Your task to perform on an android device: What's on my calendar today? Image 0: 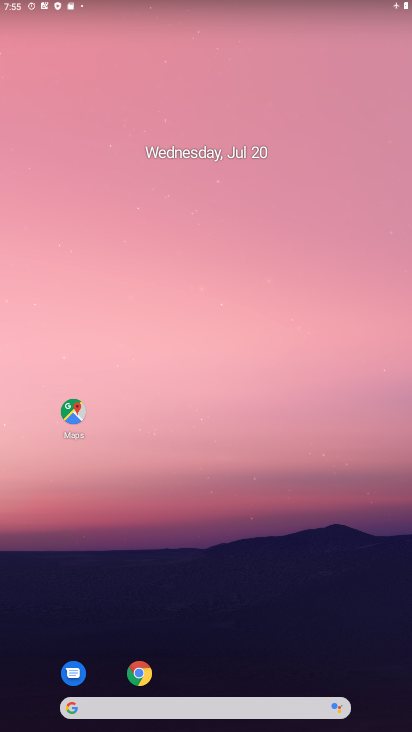
Step 0: drag from (381, 660) to (121, 70)
Your task to perform on an android device: What's on my calendar today? Image 1: 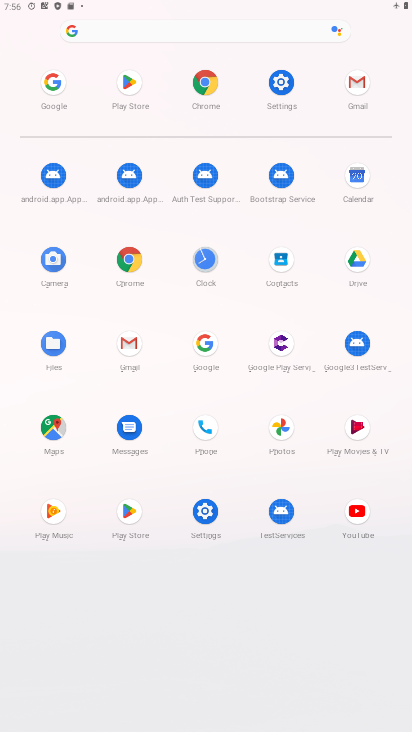
Step 1: click (353, 169)
Your task to perform on an android device: What's on my calendar today? Image 2: 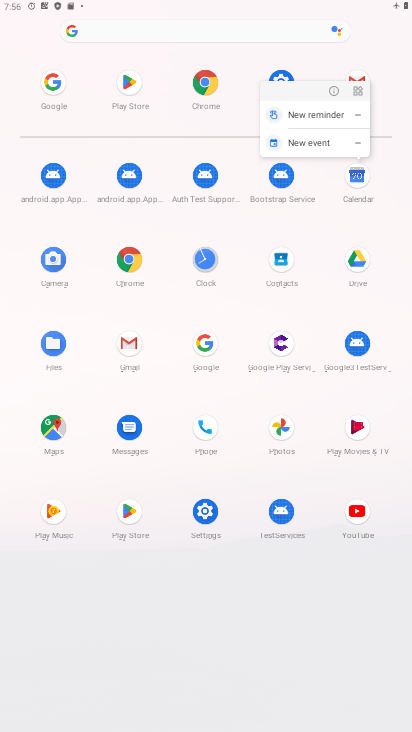
Step 2: click (353, 169)
Your task to perform on an android device: What's on my calendar today? Image 3: 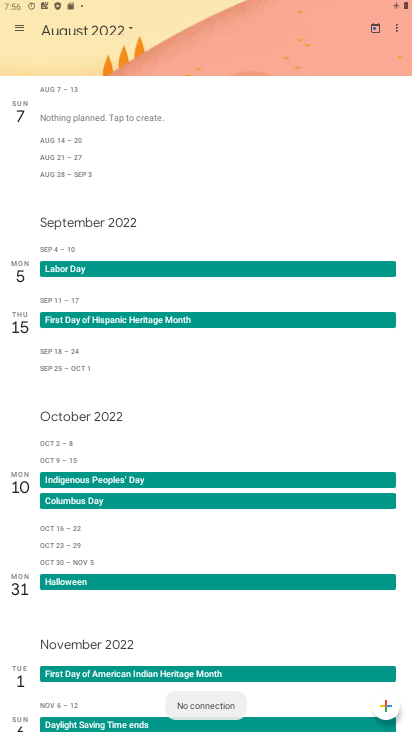
Step 3: task complete